Your task to perform on an android device: Find coffee shops on Maps Image 0: 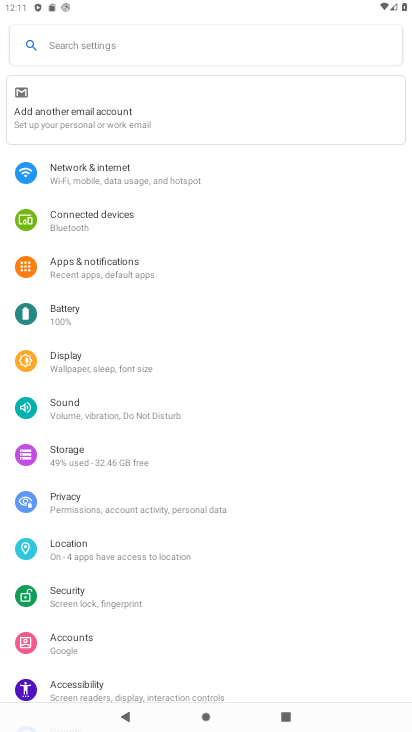
Step 0: press home button
Your task to perform on an android device: Find coffee shops on Maps Image 1: 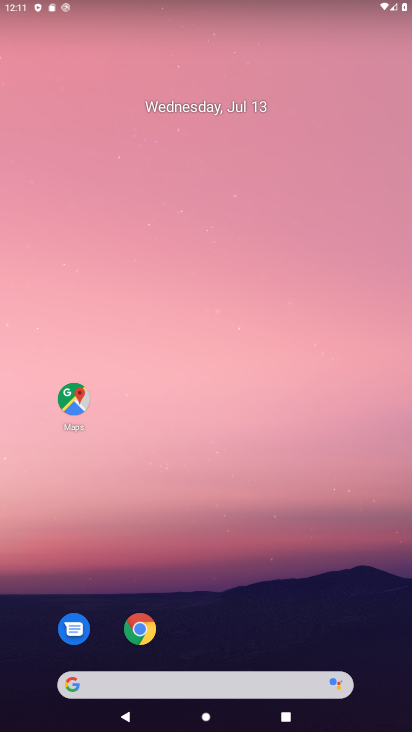
Step 1: click (75, 414)
Your task to perform on an android device: Find coffee shops on Maps Image 2: 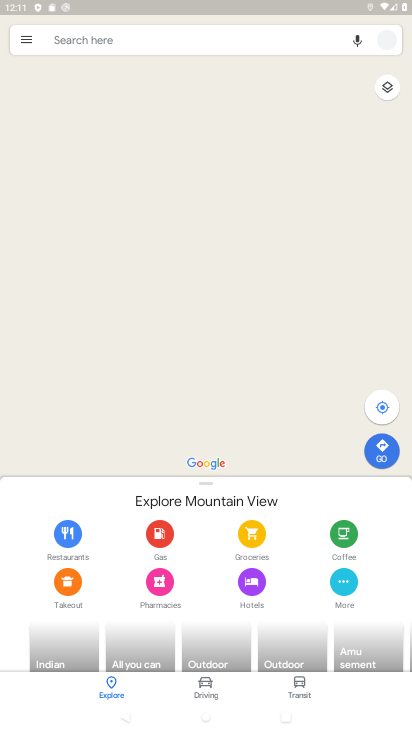
Step 2: click (152, 49)
Your task to perform on an android device: Find coffee shops on Maps Image 3: 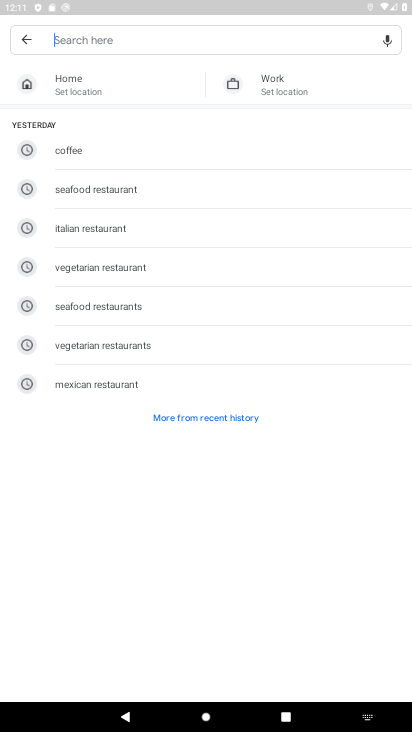
Step 3: type "coffee shops"
Your task to perform on an android device: Find coffee shops on Maps Image 4: 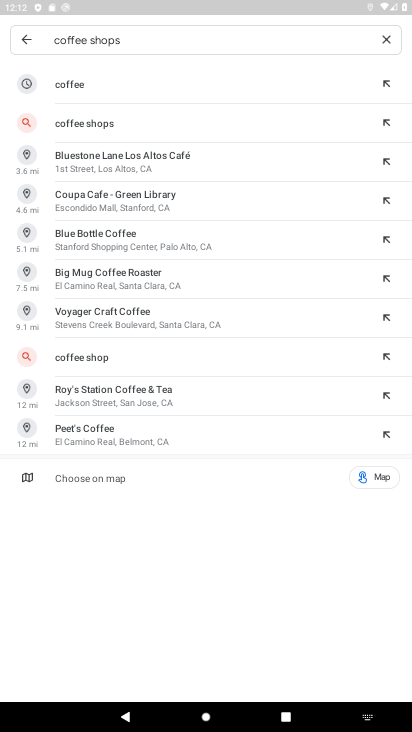
Step 4: click (135, 120)
Your task to perform on an android device: Find coffee shops on Maps Image 5: 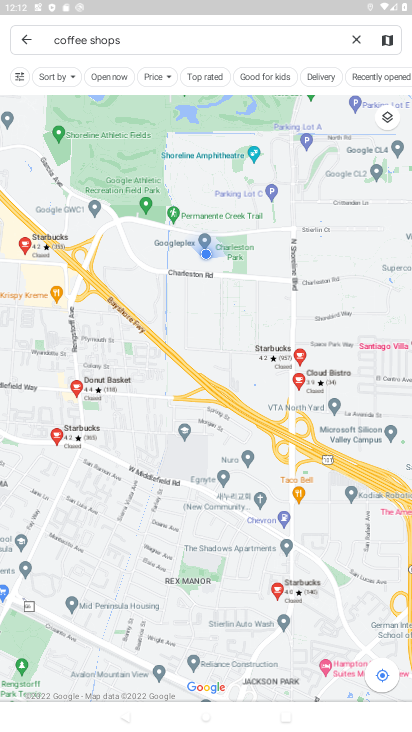
Step 5: task complete